Your task to perform on an android device: turn on the 24-hour format for clock Image 0: 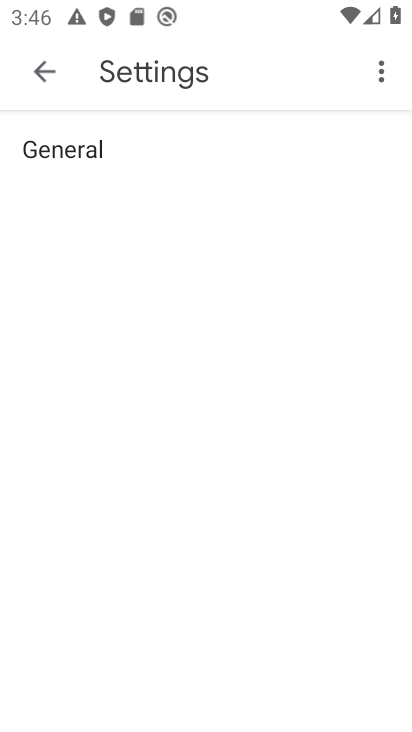
Step 0: click (44, 71)
Your task to perform on an android device: turn on the 24-hour format for clock Image 1: 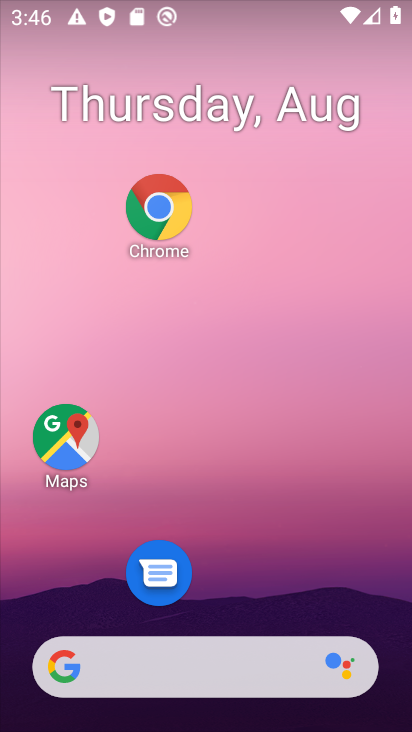
Step 1: drag from (170, 579) to (157, 163)
Your task to perform on an android device: turn on the 24-hour format for clock Image 2: 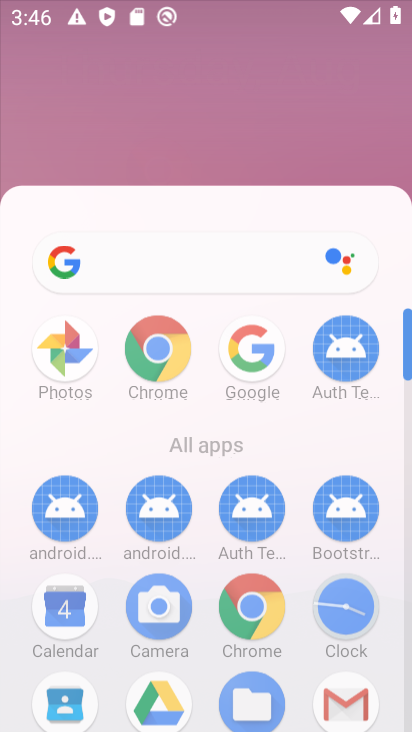
Step 2: drag from (223, 460) to (166, 136)
Your task to perform on an android device: turn on the 24-hour format for clock Image 3: 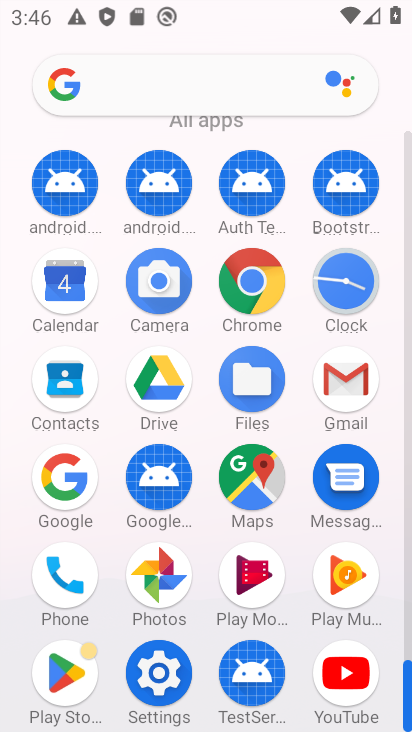
Step 3: click (328, 267)
Your task to perform on an android device: turn on the 24-hour format for clock Image 4: 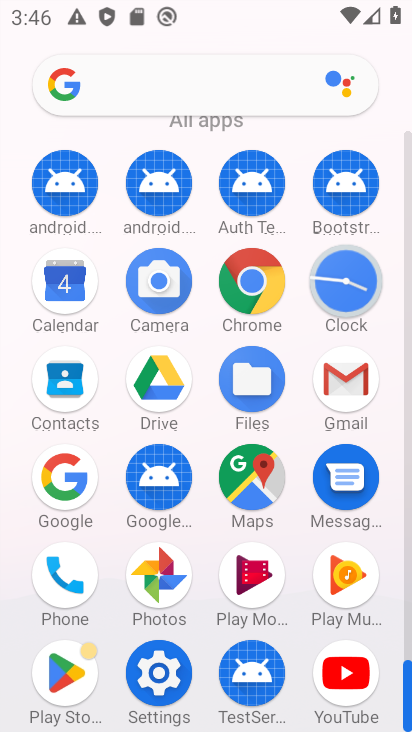
Step 4: click (335, 284)
Your task to perform on an android device: turn on the 24-hour format for clock Image 5: 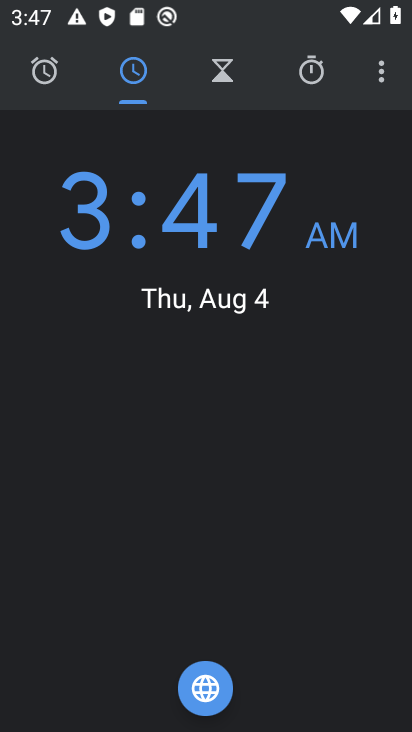
Step 5: click (386, 71)
Your task to perform on an android device: turn on the 24-hour format for clock Image 6: 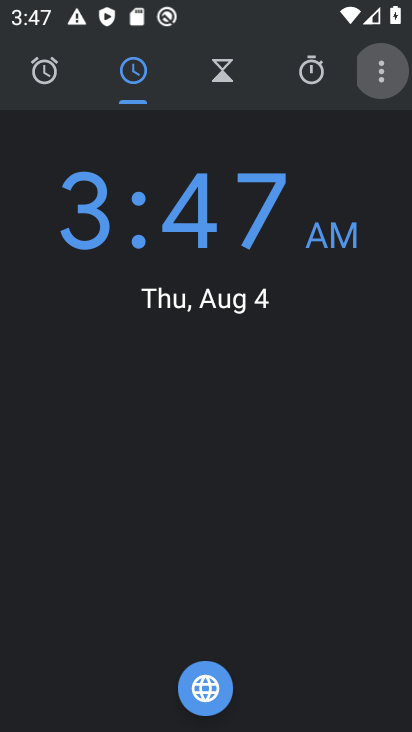
Step 6: drag from (385, 71) to (334, 186)
Your task to perform on an android device: turn on the 24-hour format for clock Image 7: 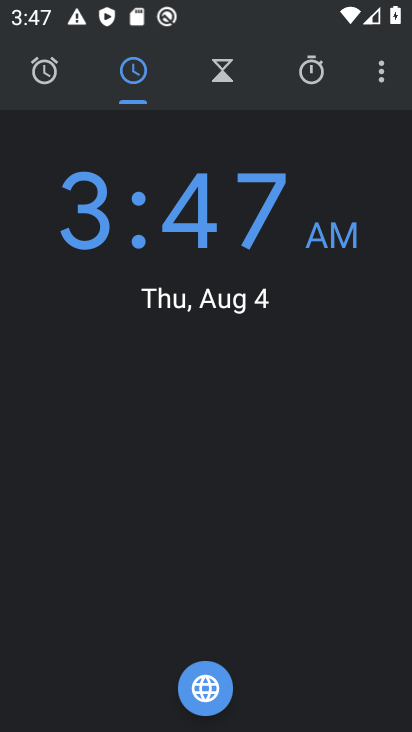
Step 7: click (375, 76)
Your task to perform on an android device: turn on the 24-hour format for clock Image 8: 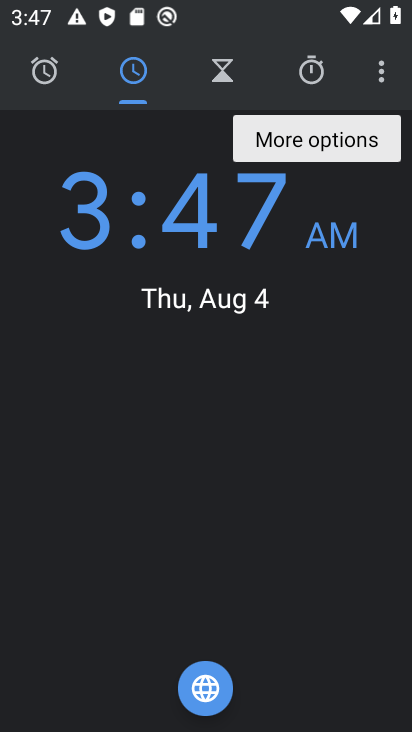
Step 8: click (375, 76)
Your task to perform on an android device: turn on the 24-hour format for clock Image 9: 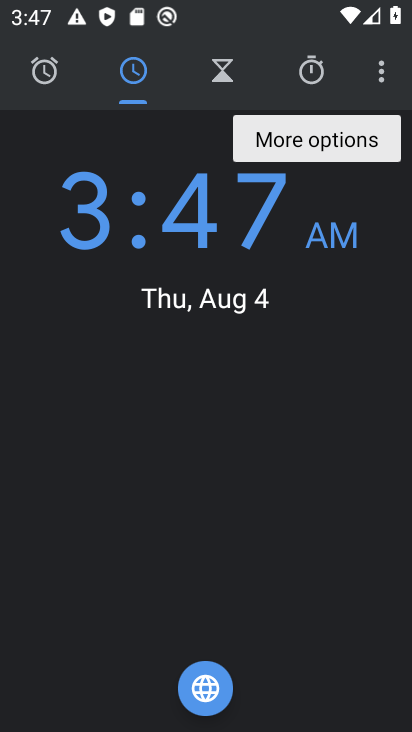
Step 9: click (386, 75)
Your task to perform on an android device: turn on the 24-hour format for clock Image 10: 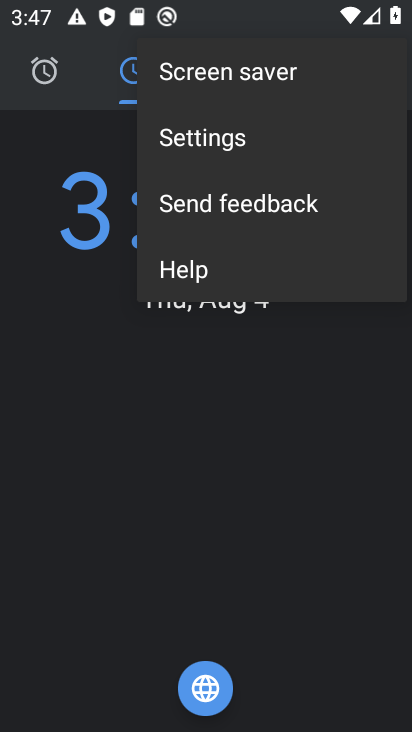
Step 10: click (184, 146)
Your task to perform on an android device: turn on the 24-hour format for clock Image 11: 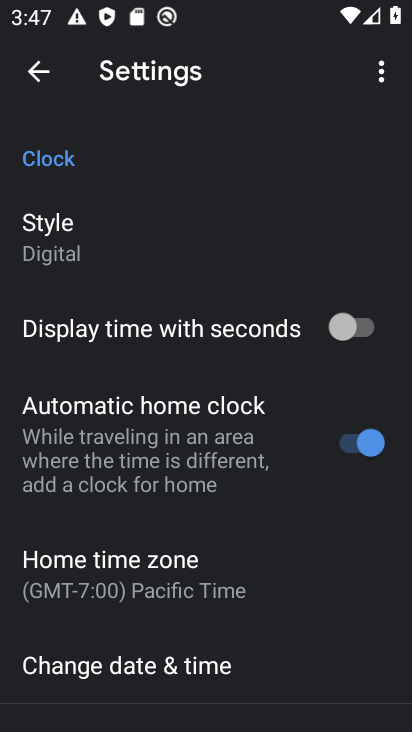
Step 11: drag from (216, 533) to (201, 137)
Your task to perform on an android device: turn on the 24-hour format for clock Image 12: 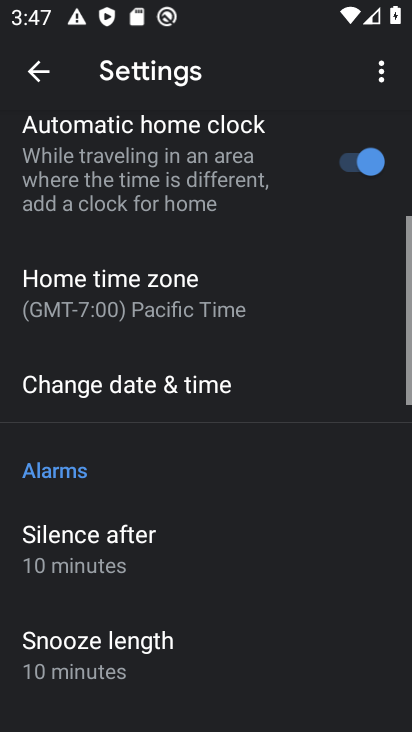
Step 12: drag from (212, 423) to (199, 140)
Your task to perform on an android device: turn on the 24-hour format for clock Image 13: 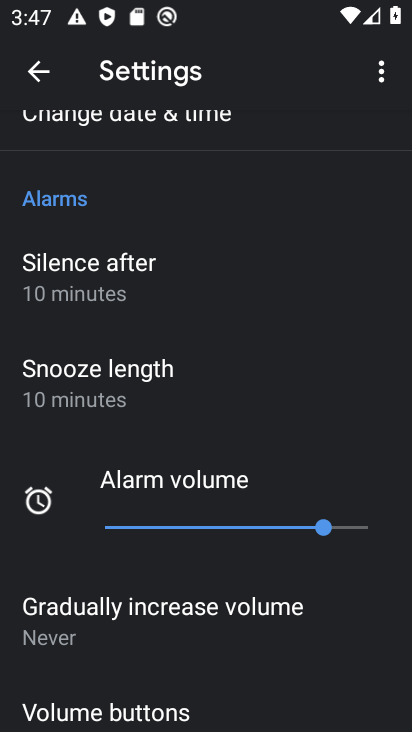
Step 13: drag from (220, 514) to (150, 209)
Your task to perform on an android device: turn on the 24-hour format for clock Image 14: 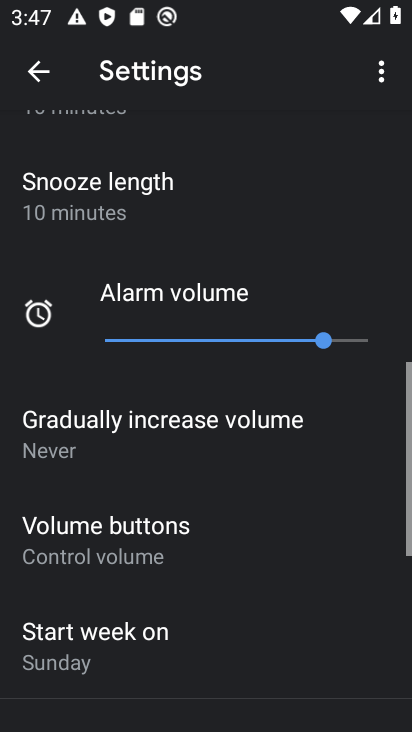
Step 14: drag from (177, 436) to (165, 194)
Your task to perform on an android device: turn on the 24-hour format for clock Image 15: 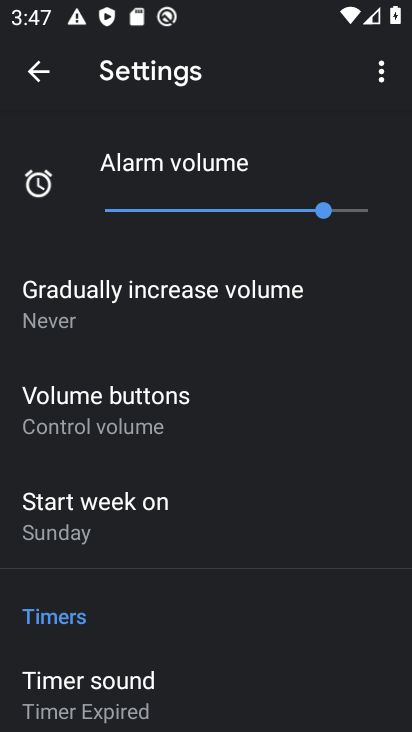
Step 15: drag from (173, 518) to (150, 233)
Your task to perform on an android device: turn on the 24-hour format for clock Image 16: 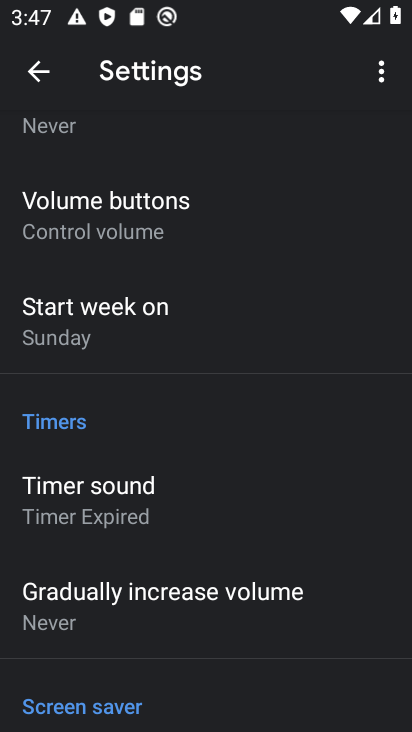
Step 16: drag from (210, 562) to (193, 270)
Your task to perform on an android device: turn on the 24-hour format for clock Image 17: 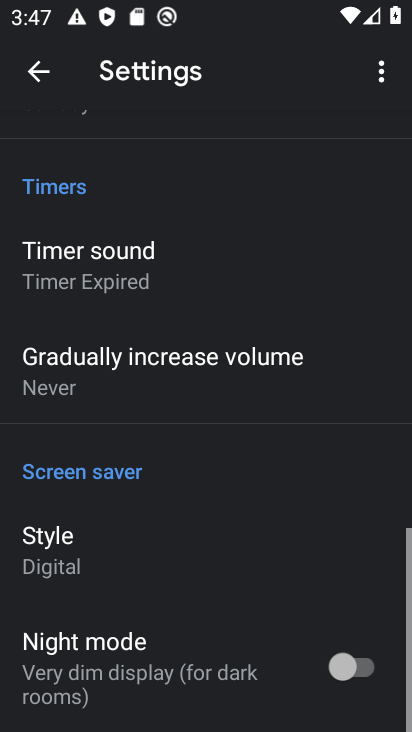
Step 17: drag from (202, 285) to (251, 580)
Your task to perform on an android device: turn on the 24-hour format for clock Image 18: 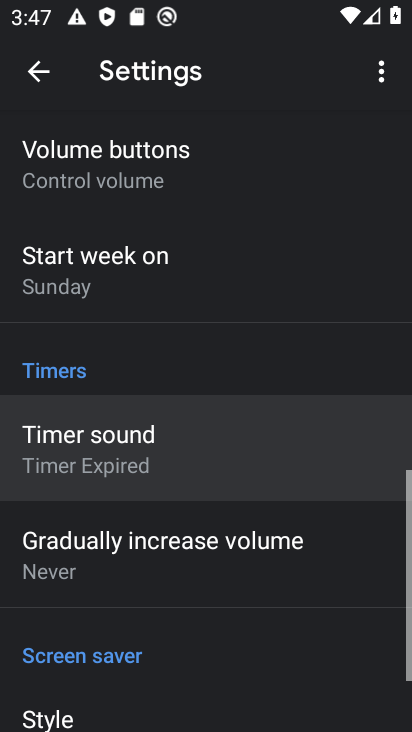
Step 18: drag from (205, 247) to (235, 467)
Your task to perform on an android device: turn on the 24-hour format for clock Image 19: 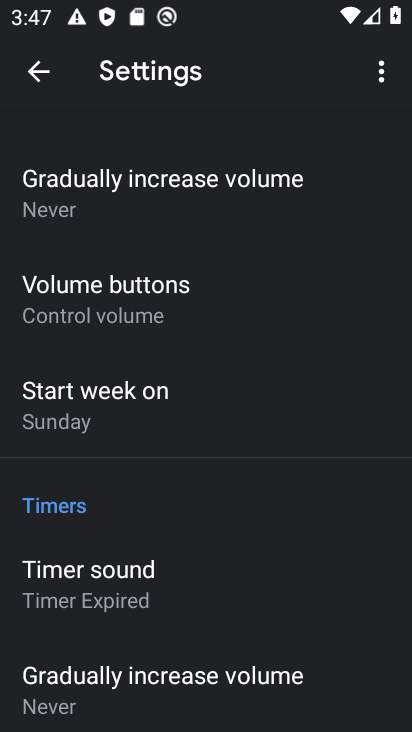
Step 19: drag from (146, 230) to (166, 102)
Your task to perform on an android device: turn on the 24-hour format for clock Image 20: 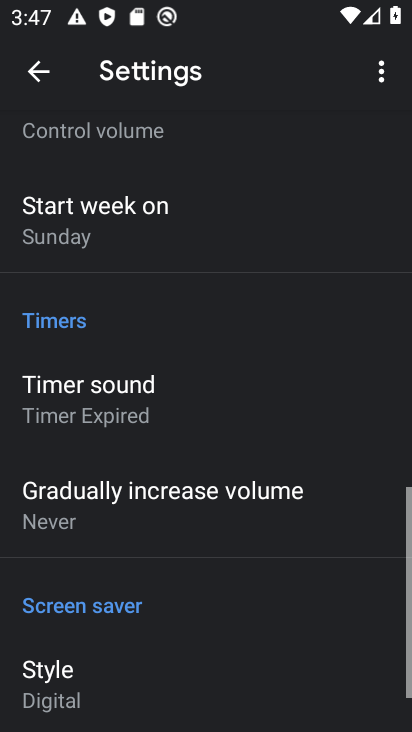
Step 20: drag from (208, 359) to (200, 244)
Your task to perform on an android device: turn on the 24-hour format for clock Image 21: 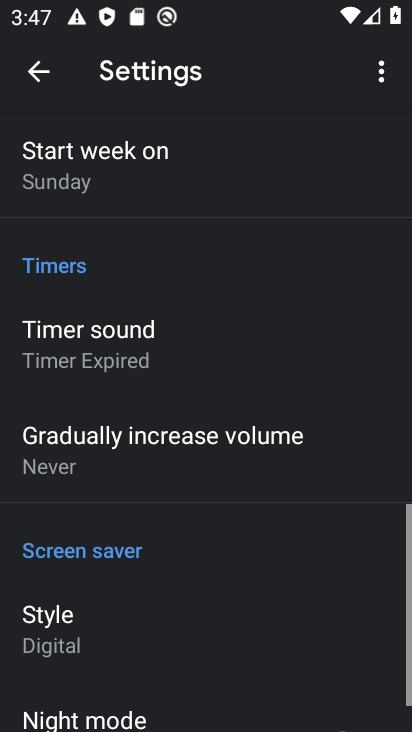
Step 21: drag from (186, 590) to (159, 338)
Your task to perform on an android device: turn on the 24-hour format for clock Image 22: 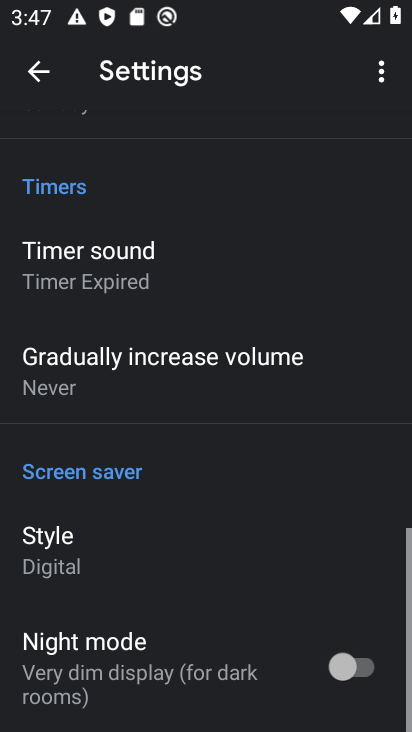
Step 22: drag from (206, 655) to (191, 394)
Your task to perform on an android device: turn on the 24-hour format for clock Image 23: 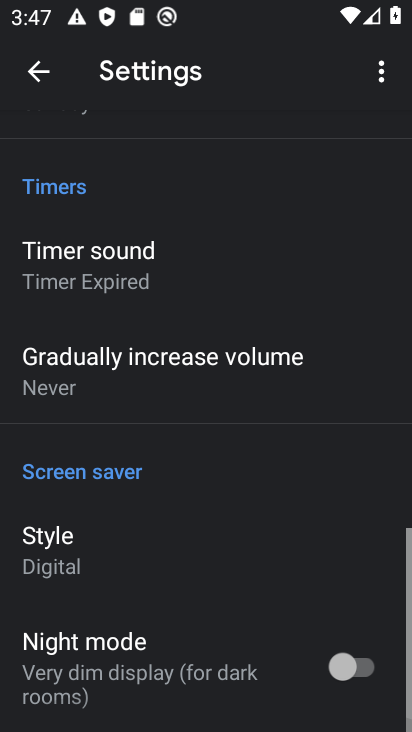
Step 23: drag from (220, 579) to (183, 363)
Your task to perform on an android device: turn on the 24-hour format for clock Image 24: 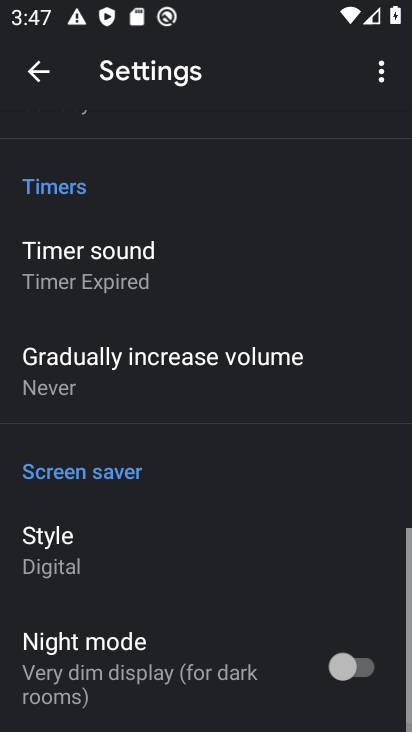
Step 24: drag from (171, 313) to (165, 606)
Your task to perform on an android device: turn on the 24-hour format for clock Image 25: 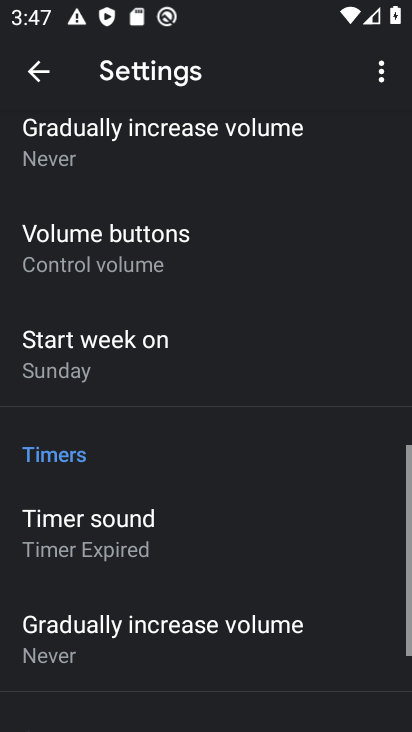
Step 25: drag from (165, 329) to (192, 601)
Your task to perform on an android device: turn on the 24-hour format for clock Image 26: 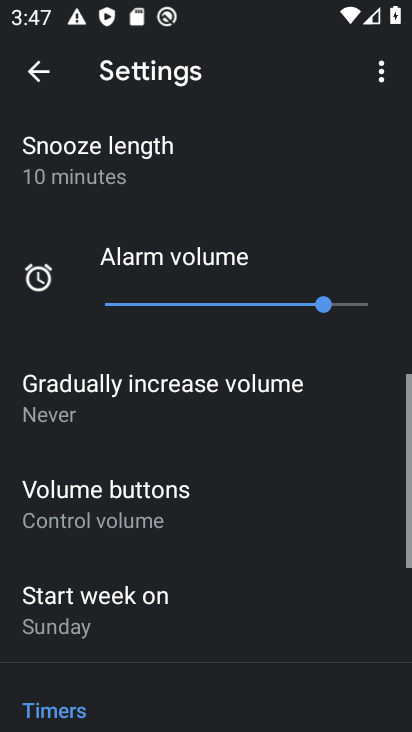
Step 26: drag from (169, 313) to (168, 522)
Your task to perform on an android device: turn on the 24-hour format for clock Image 27: 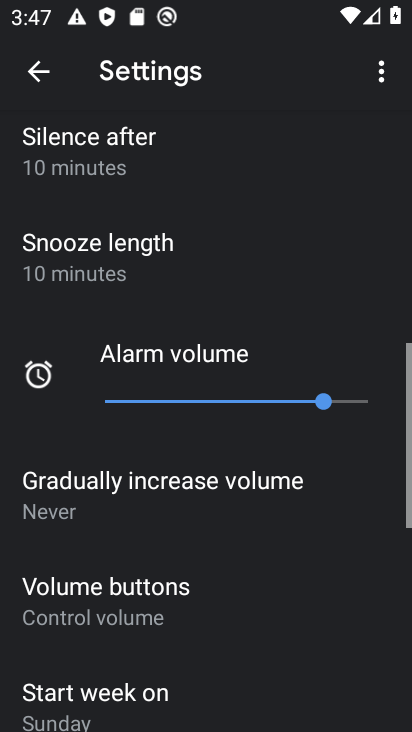
Step 27: drag from (166, 265) to (243, 596)
Your task to perform on an android device: turn on the 24-hour format for clock Image 28: 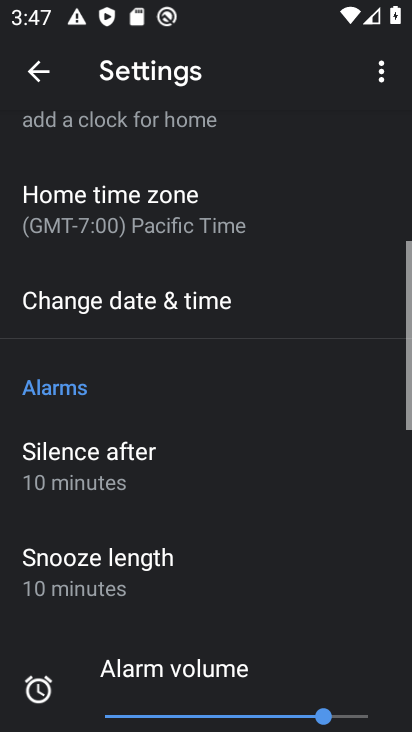
Step 28: drag from (227, 298) to (224, 510)
Your task to perform on an android device: turn on the 24-hour format for clock Image 29: 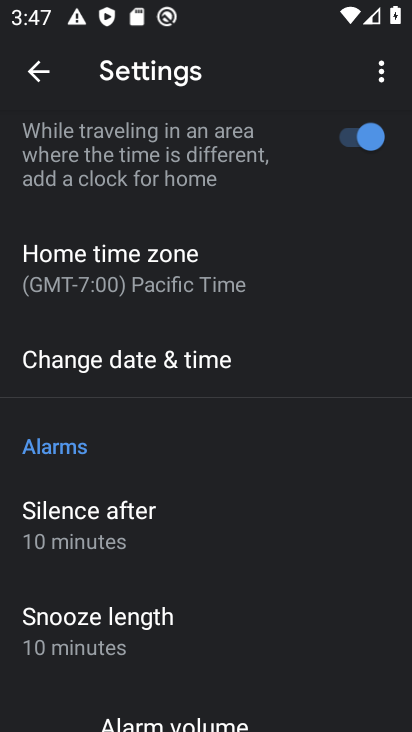
Step 29: click (178, 376)
Your task to perform on an android device: turn on the 24-hour format for clock Image 30: 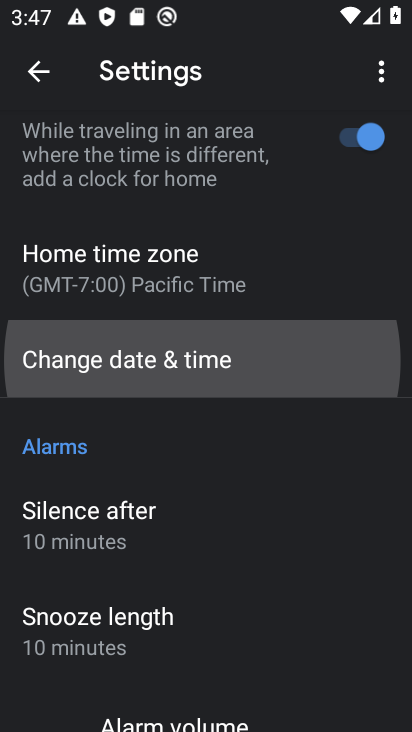
Step 30: click (178, 376)
Your task to perform on an android device: turn on the 24-hour format for clock Image 31: 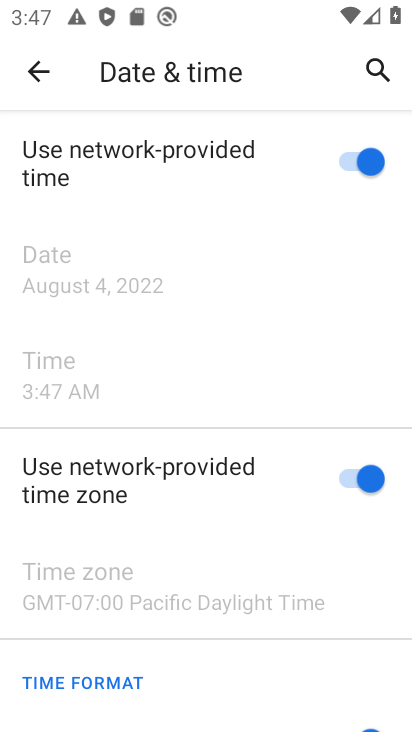
Step 31: drag from (206, 598) to (166, 246)
Your task to perform on an android device: turn on the 24-hour format for clock Image 32: 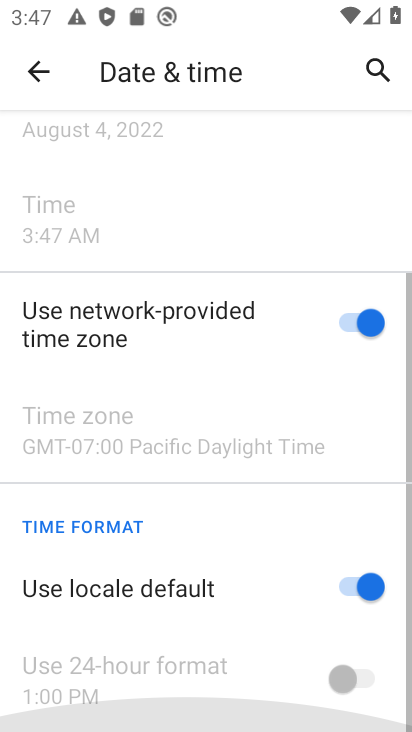
Step 32: drag from (207, 475) to (149, 189)
Your task to perform on an android device: turn on the 24-hour format for clock Image 33: 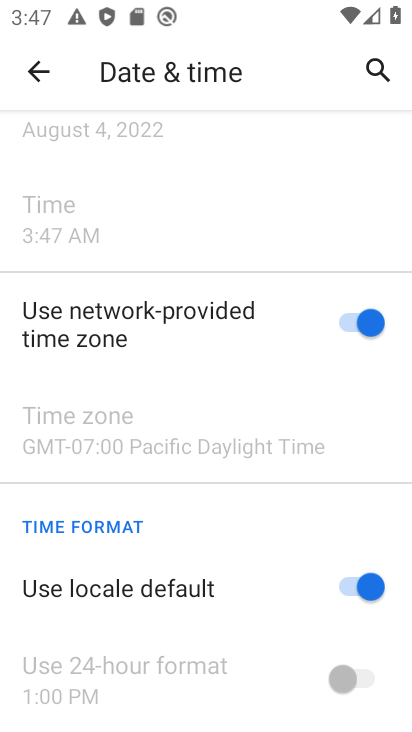
Step 33: click (366, 578)
Your task to perform on an android device: turn on the 24-hour format for clock Image 34: 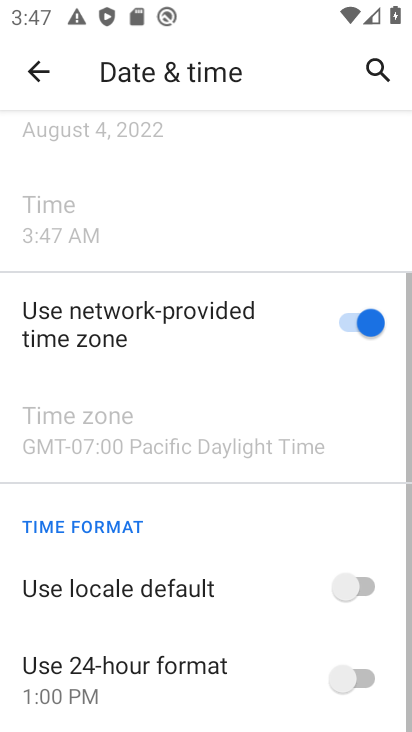
Step 34: click (334, 684)
Your task to perform on an android device: turn on the 24-hour format for clock Image 35: 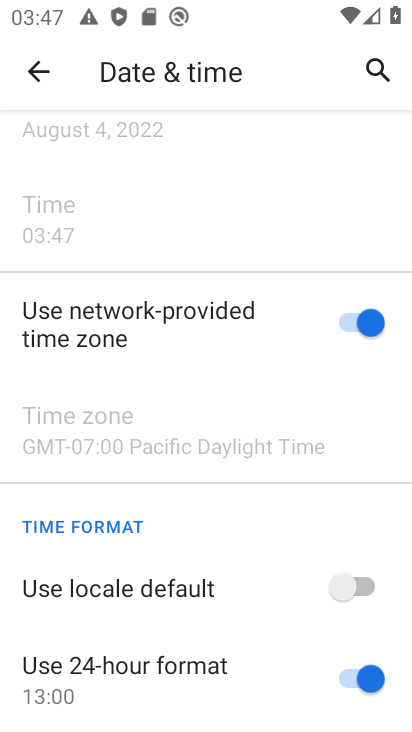
Step 35: task complete